Your task to perform on an android device: turn on the 24-hour format for clock Image 0: 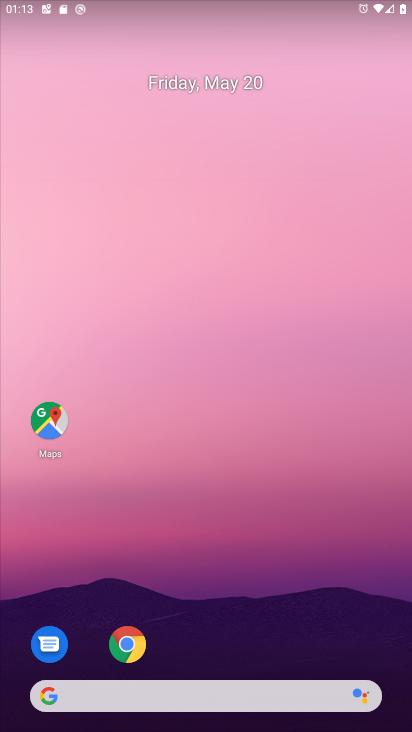
Step 0: drag from (173, 679) to (228, 188)
Your task to perform on an android device: turn on the 24-hour format for clock Image 1: 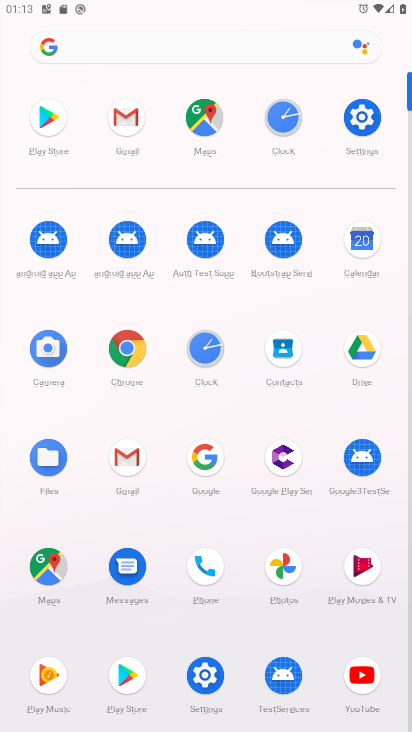
Step 1: click (276, 123)
Your task to perform on an android device: turn on the 24-hour format for clock Image 2: 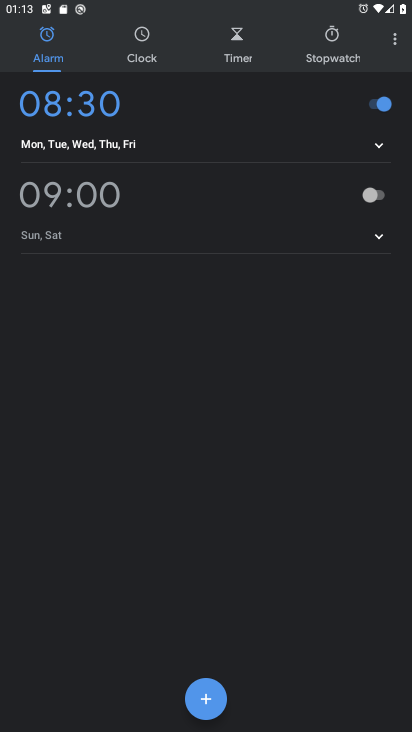
Step 2: click (391, 42)
Your task to perform on an android device: turn on the 24-hour format for clock Image 3: 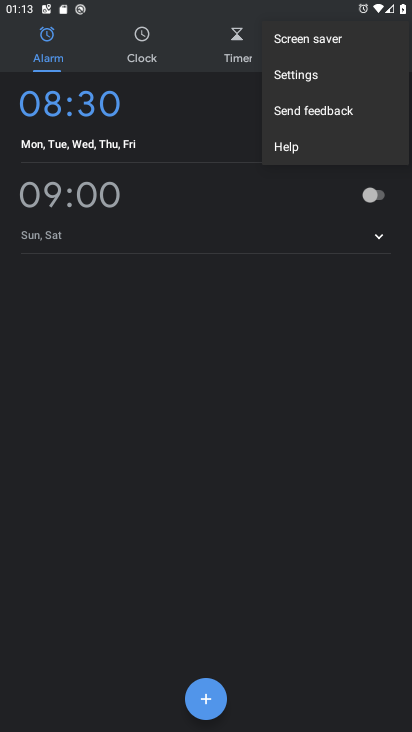
Step 3: click (287, 74)
Your task to perform on an android device: turn on the 24-hour format for clock Image 4: 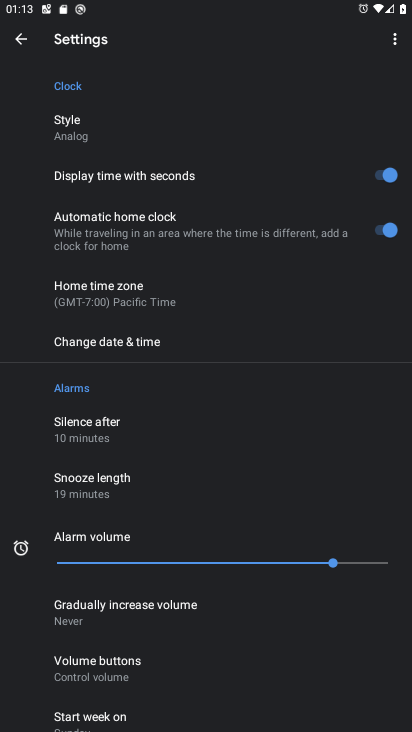
Step 4: click (129, 346)
Your task to perform on an android device: turn on the 24-hour format for clock Image 5: 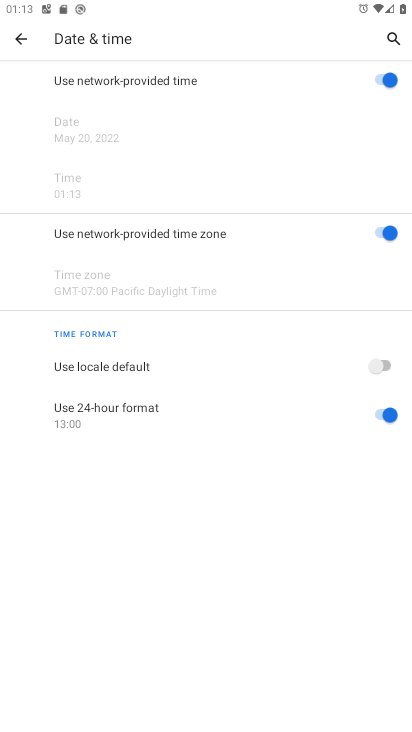
Step 5: task complete